Your task to perform on an android device: open sync settings in chrome Image 0: 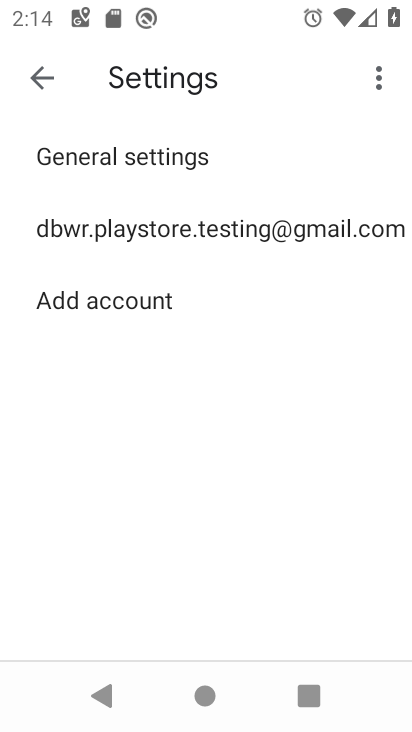
Step 0: press home button
Your task to perform on an android device: open sync settings in chrome Image 1: 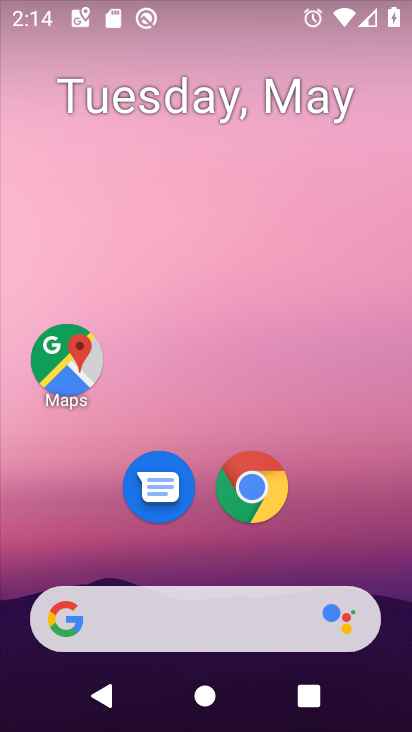
Step 1: drag from (112, 352) to (272, 126)
Your task to perform on an android device: open sync settings in chrome Image 2: 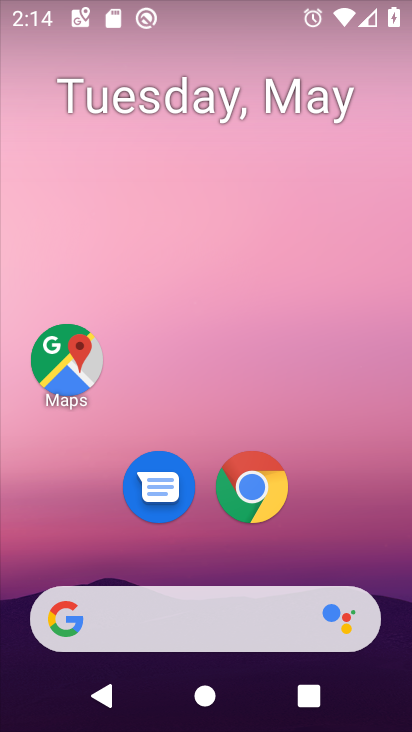
Step 2: drag from (3, 560) to (312, 150)
Your task to perform on an android device: open sync settings in chrome Image 3: 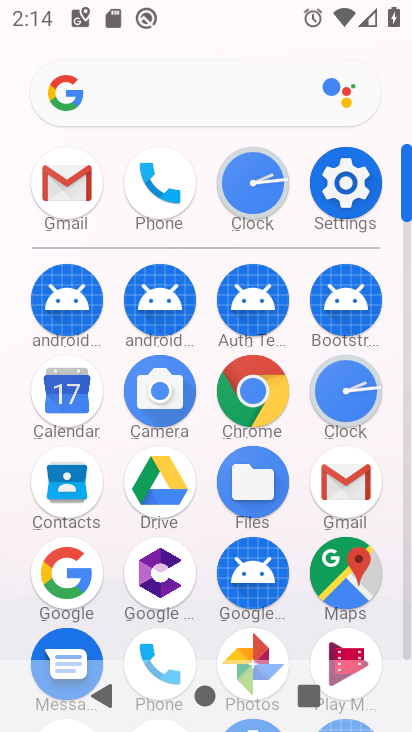
Step 3: click (332, 198)
Your task to perform on an android device: open sync settings in chrome Image 4: 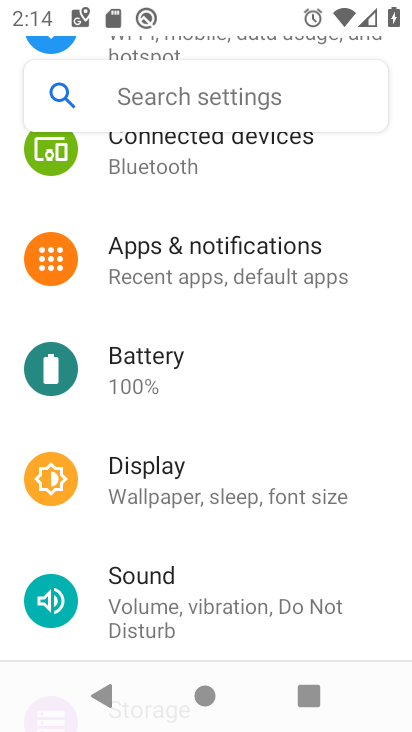
Step 4: press back button
Your task to perform on an android device: open sync settings in chrome Image 5: 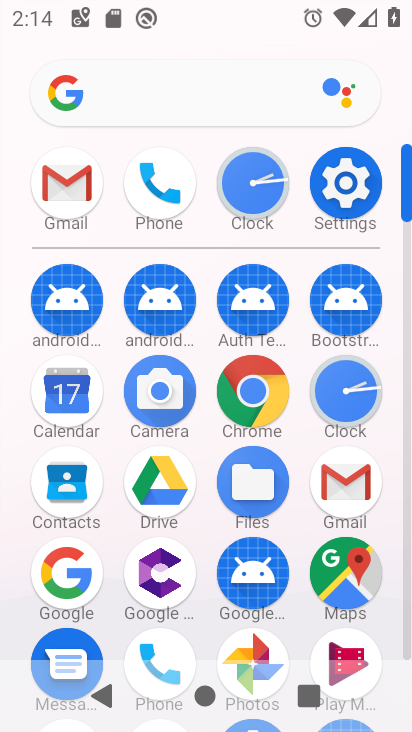
Step 5: click (276, 383)
Your task to perform on an android device: open sync settings in chrome Image 6: 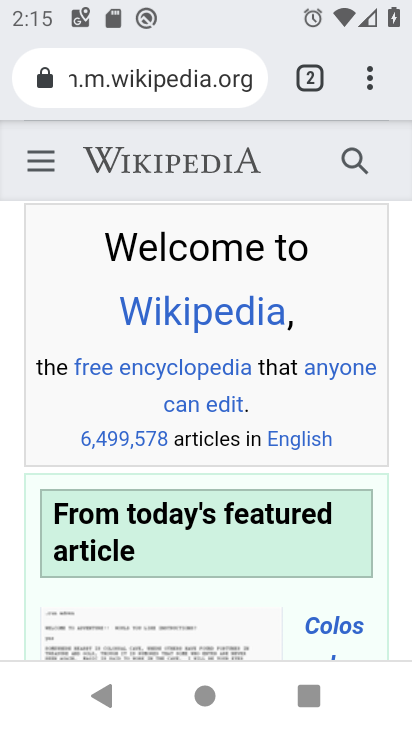
Step 6: click (370, 65)
Your task to perform on an android device: open sync settings in chrome Image 7: 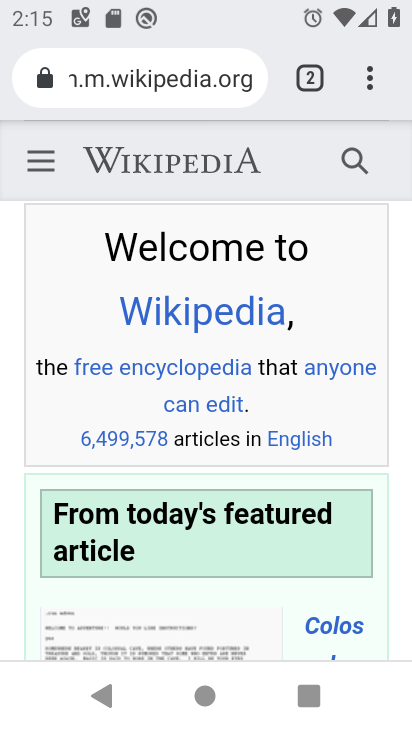
Step 7: click (368, 85)
Your task to perform on an android device: open sync settings in chrome Image 8: 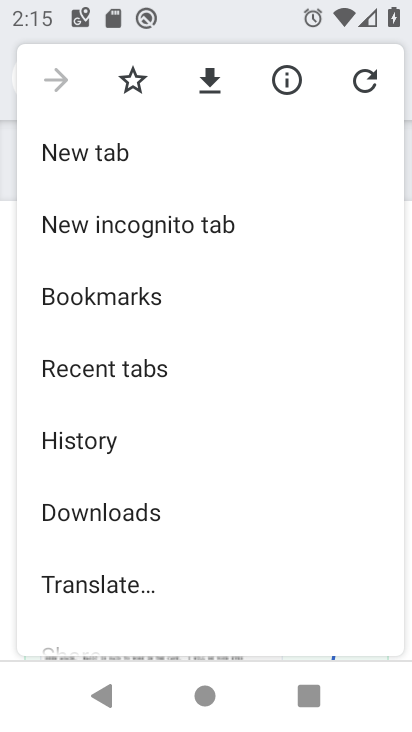
Step 8: drag from (21, 544) to (235, 93)
Your task to perform on an android device: open sync settings in chrome Image 9: 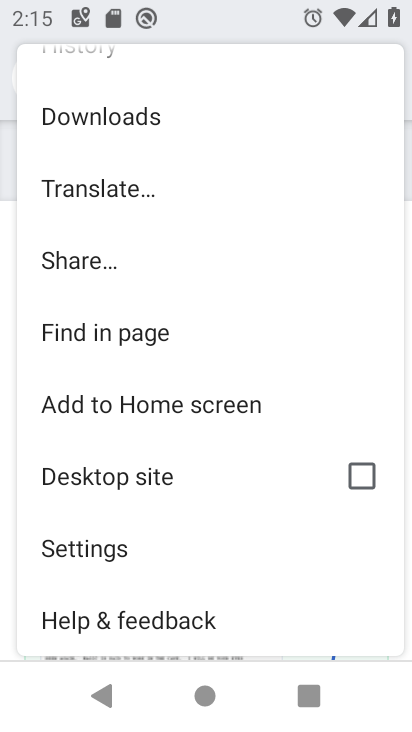
Step 9: click (88, 548)
Your task to perform on an android device: open sync settings in chrome Image 10: 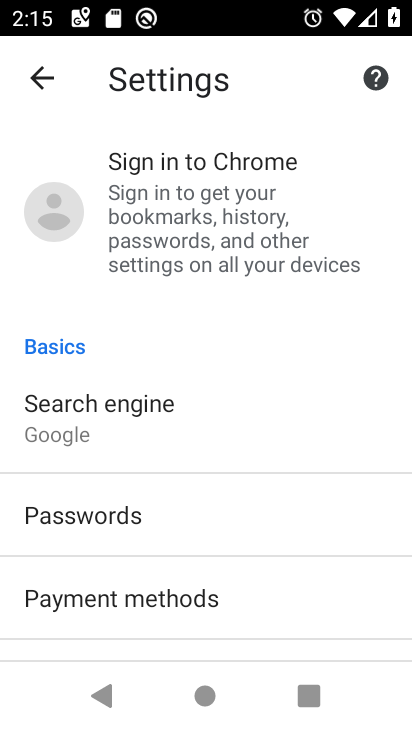
Step 10: drag from (41, 471) to (254, 125)
Your task to perform on an android device: open sync settings in chrome Image 11: 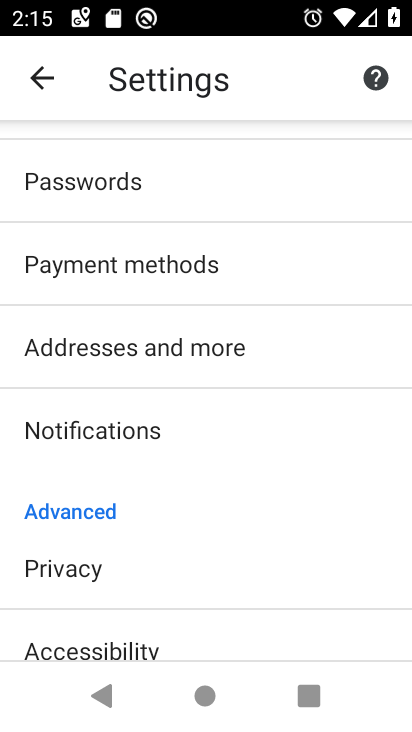
Step 11: drag from (34, 674) to (215, 213)
Your task to perform on an android device: open sync settings in chrome Image 12: 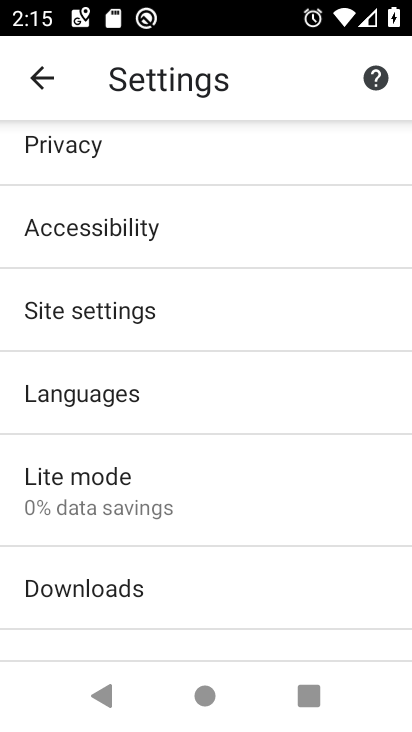
Step 12: drag from (151, 562) to (322, 126)
Your task to perform on an android device: open sync settings in chrome Image 13: 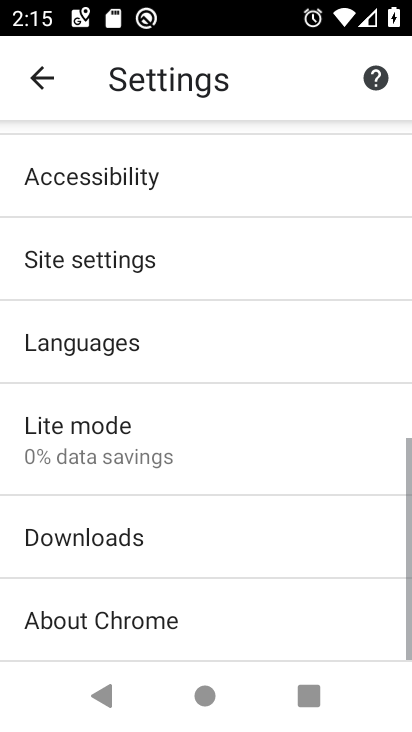
Step 13: drag from (297, 131) to (170, 683)
Your task to perform on an android device: open sync settings in chrome Image 14: 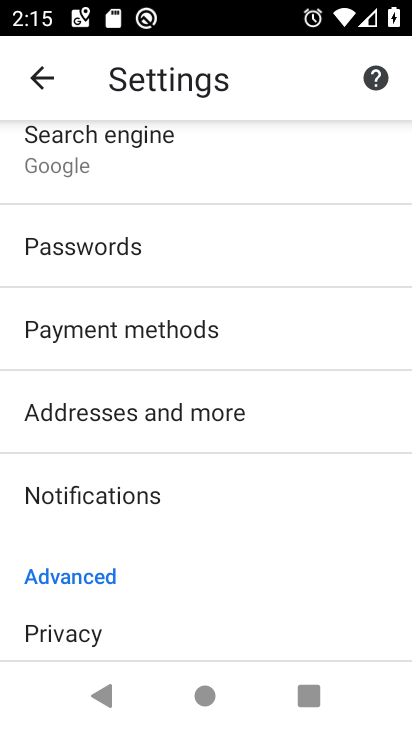
Step 14: drag from (96, 177) to (112, 632)
Your task to perform on an android device: open sync settings in chrome Image 15: 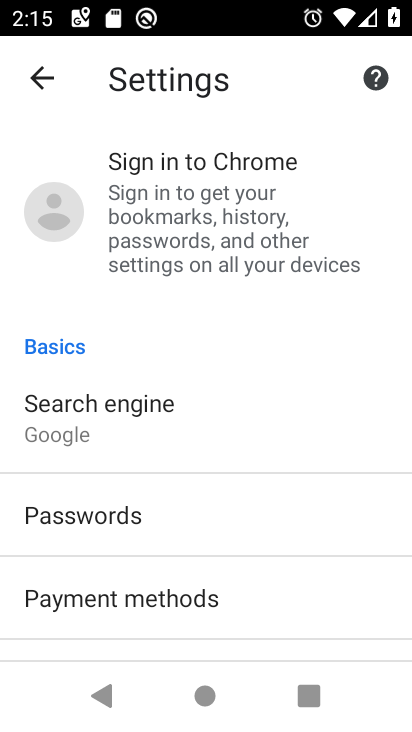
Step 15: drag from (139, 587) to (296, 110)
Your task to perform on an android device: open sync settings in chrome Image 16: 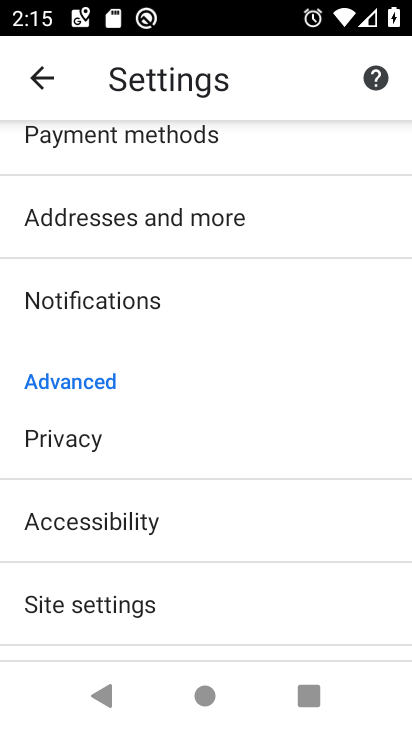
Step 16: click (264, 625)
Your task to perform on an android device: open sync settings in chrome Image 17: 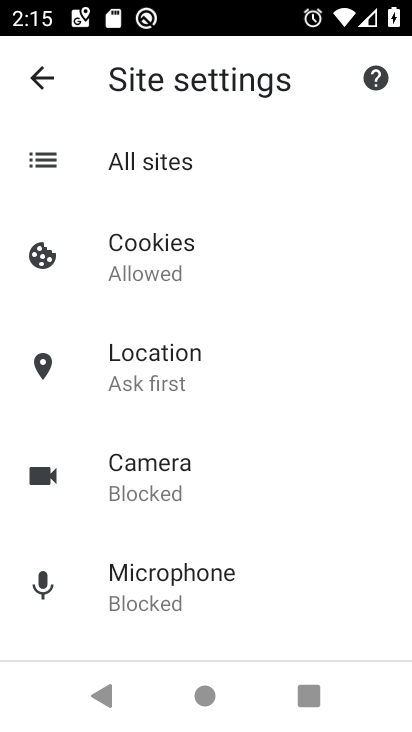
Step 17: drag from (111, 599) to (253, 231)
Your task to perform on an android device: open sync settings in chrome Image 18: 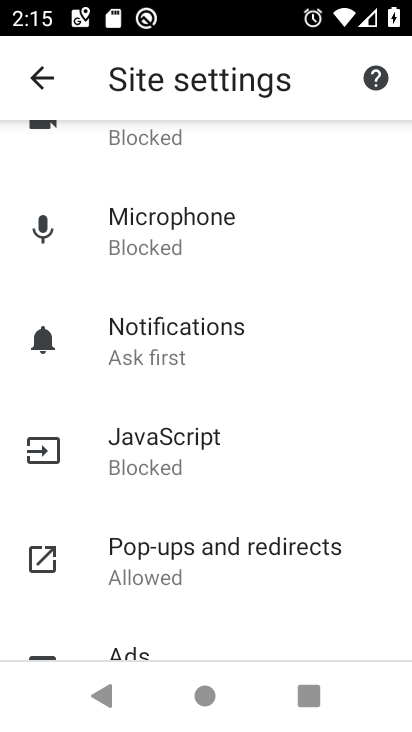
Step 18: drag from (58, 539) to (239, 233)
Your task to perform on an android device: open sync settings in chrome Image 19: 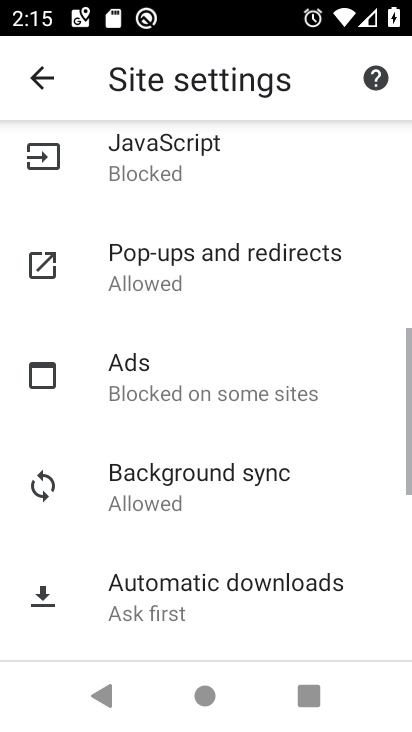
Step 19: click (187, 486)
Your task to perform on an android device: open sync settings in chrome Image 20: 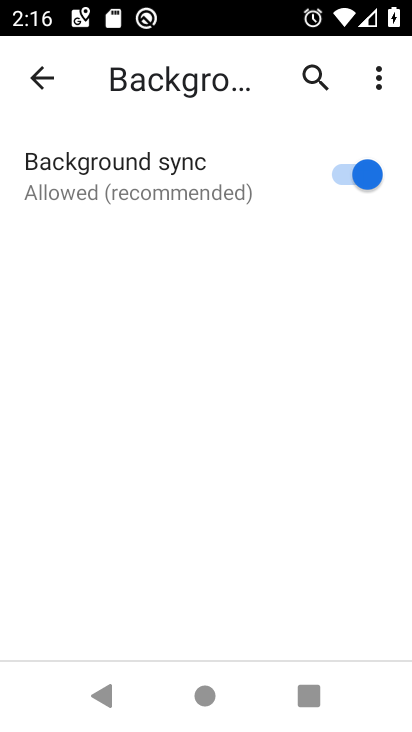
Step 20: task complete